Your task to perform on an android device: turn on the 24-hour format for clock Image 0: 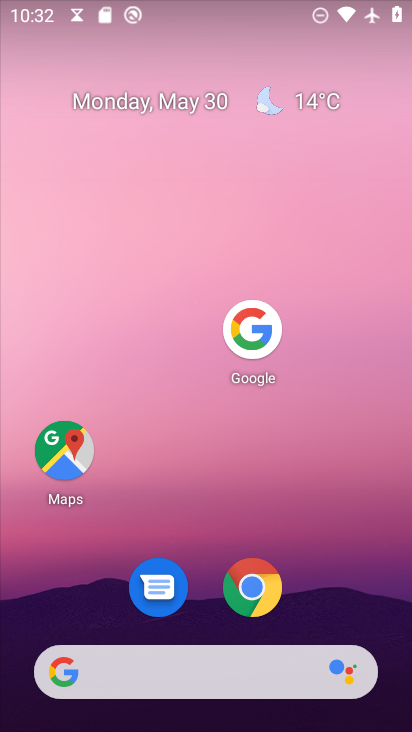
Step 0: press home button
Your task to perform on an android device: turn on the 24-hour format for clock Image 1: 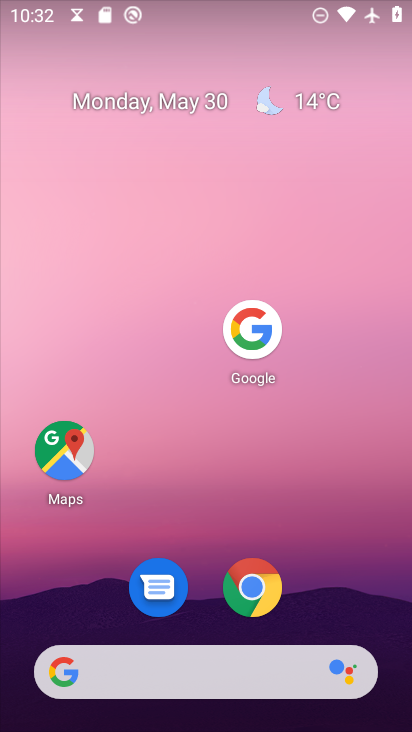
Step 1: drag from (207, 654) to (303, 1)
Your task to perform on an android device: turn on the 24-hour format for clock Image 2: 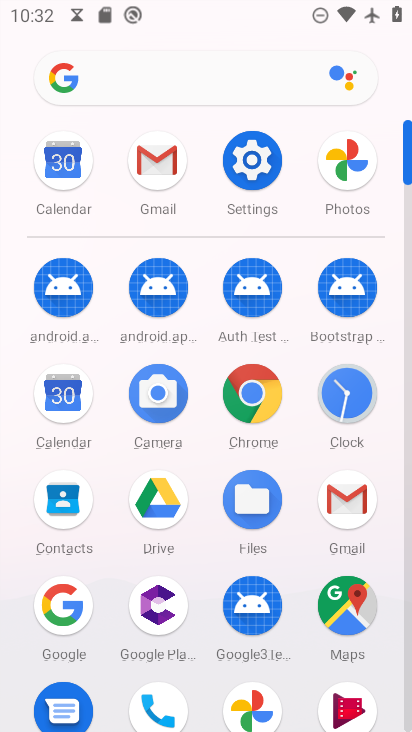
Step 2: click (330, 399)
Your task to perform on an android device: turn on the 24-hour format for clock Image 3: 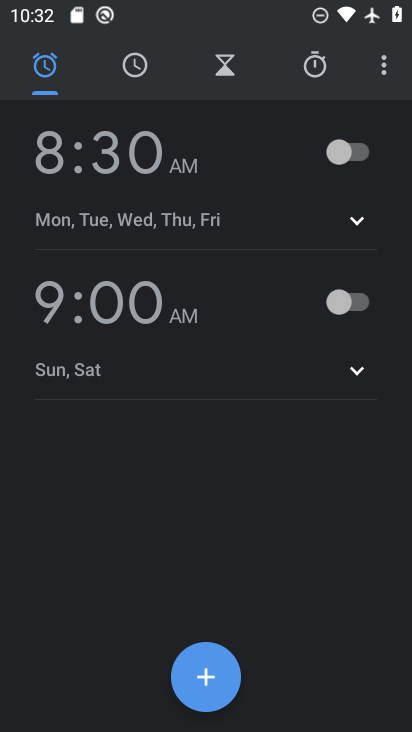
Step 3: click (378, 67)
Your task to perform on an android device: turn on the 24-hour format for clock Image 4: 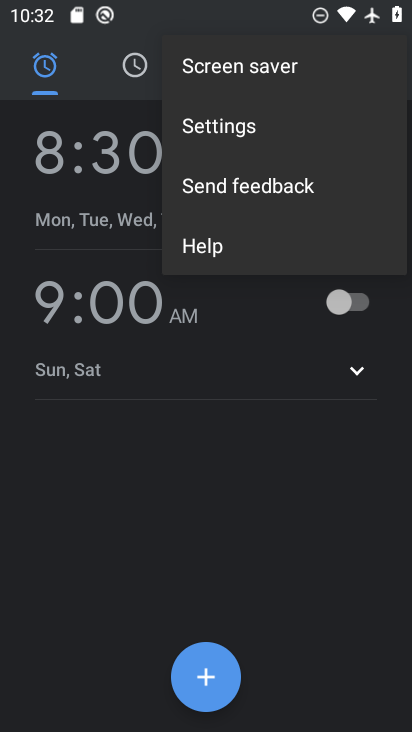
Step 4: click (226, 119)
Your task to perform on an android device: turn on the 24-hour format for clock Image 5: 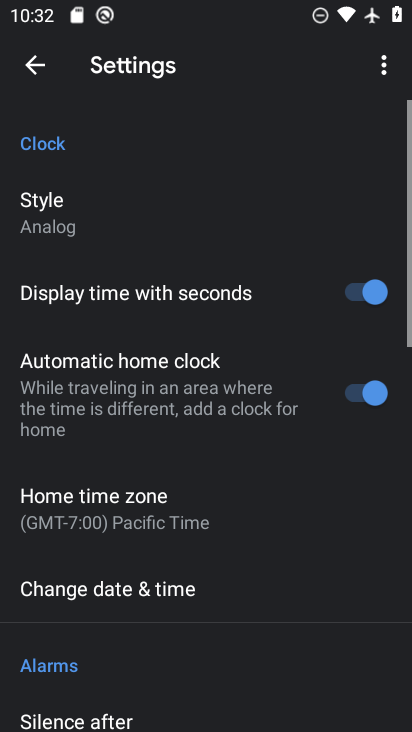
Step 5: drag from (233, 620) to (280, 229)
Your task to perform on an android device: turn on the 24-hour format for clock Image 6: 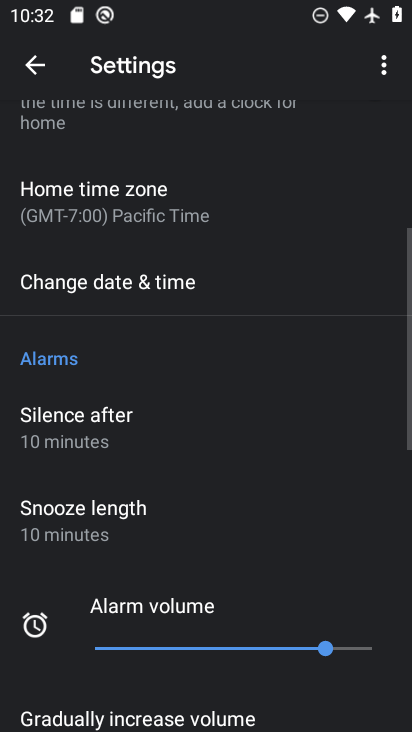
Step 6: click (132, 276)
Your task to perform on an android device: turn on the 24-hour format for clock Image 7: 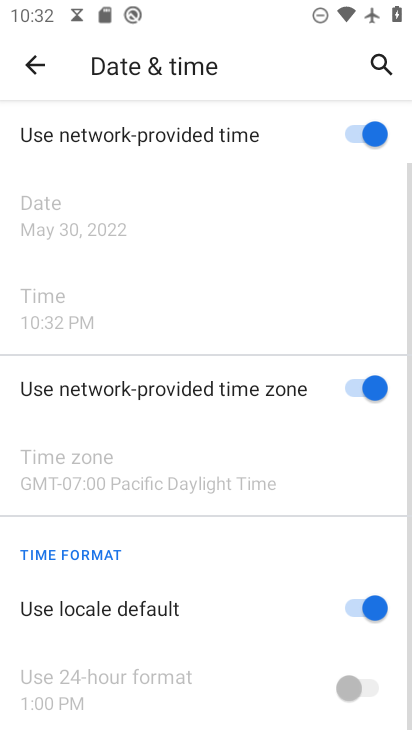
Step 7: drag from (283, 560) to (314, 242)
Your task to perform on an android device: turn on the 24-hour format for clock Image 8: 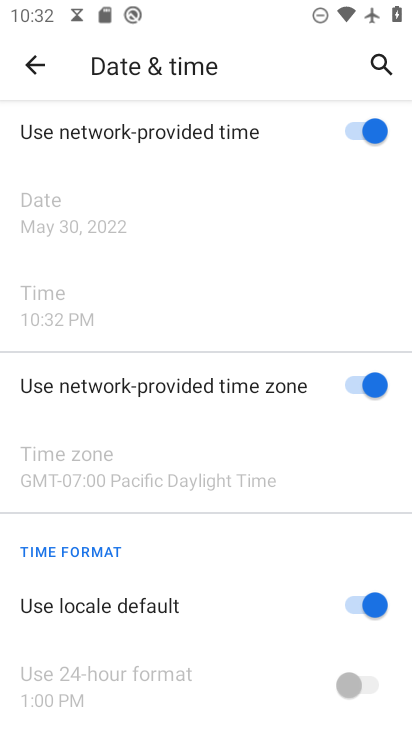
Step 8: click (368, 690)
Your task to perform on an android device: turn on the 24-hour format for clock Image 9: 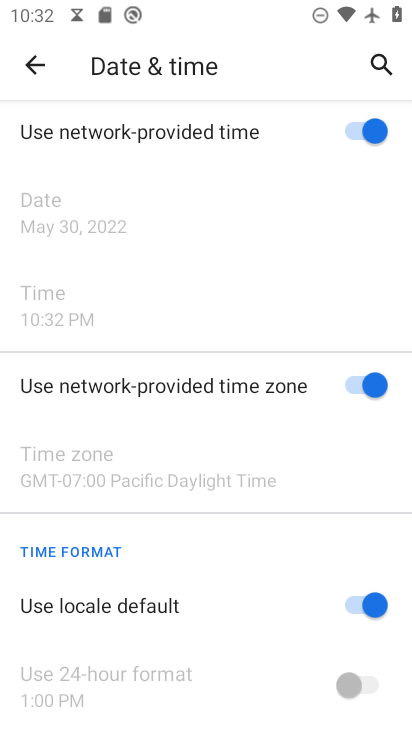
Step 9: click (353, 607)
Your task to perform on an android device: turn on the 24-hour format for clock Image 10: 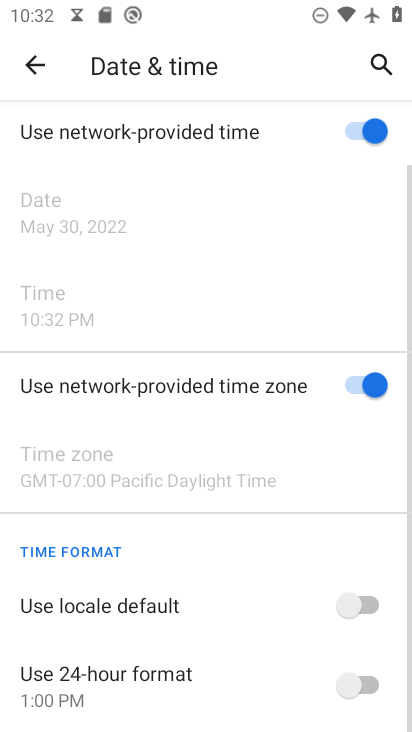
Step 10: click (361, 681)
Your task to perform on an android device: turn on the 24-hour format for clock Image 11: 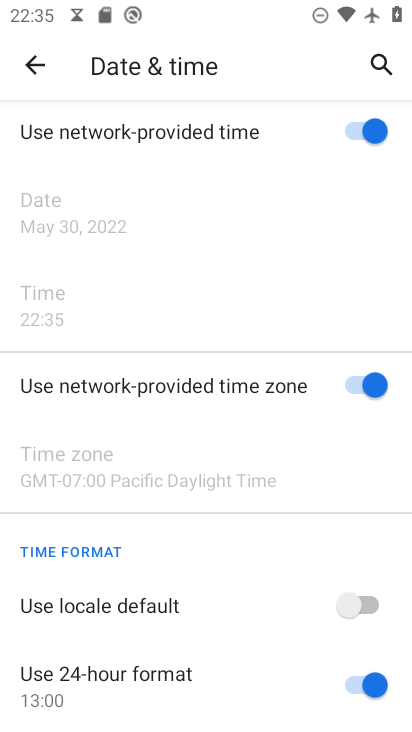
Step 11: task complete